Your task to perform on an android device: change notification settings in the gmail app Image 0: 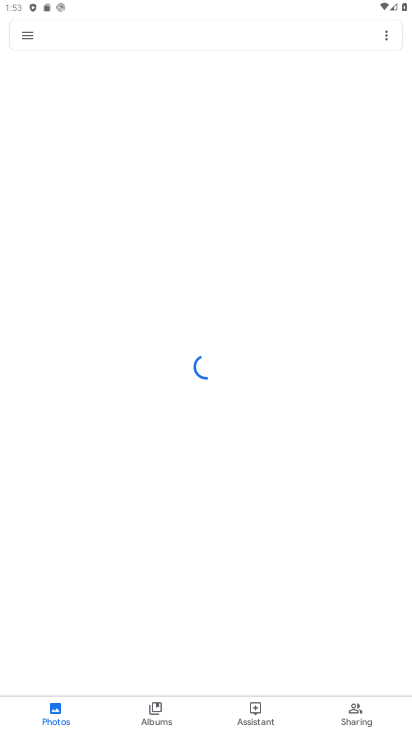
Step 0: press home button
Your task to perform on an android device: change notification settings in the gmail app Image 1: 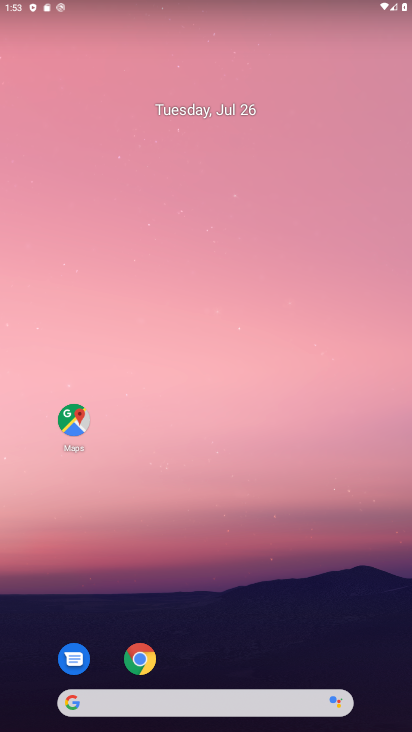
Step 1: drag from (257, 656) to (268, 11)
Your task to perform on an android device: change notification settings in the gmail app Image 2: 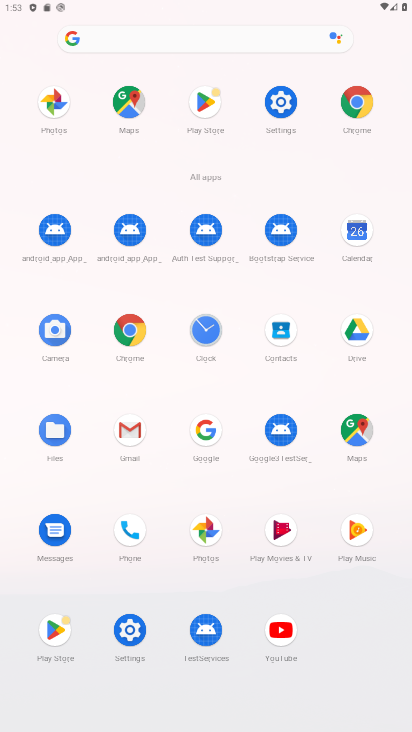
Step 2: click (129, 428)
Your task to perform on an android device: change notification settings in the gmail app Image 3: 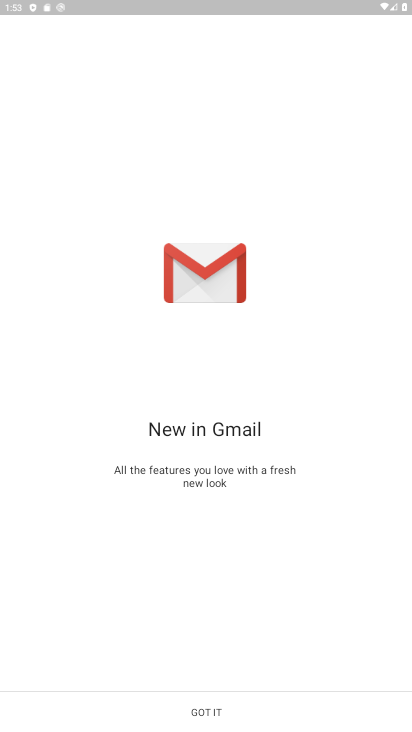
Step 3: click (242, 718)
Your task to perform on an android device: change notification settings in the gmail app Image 4: 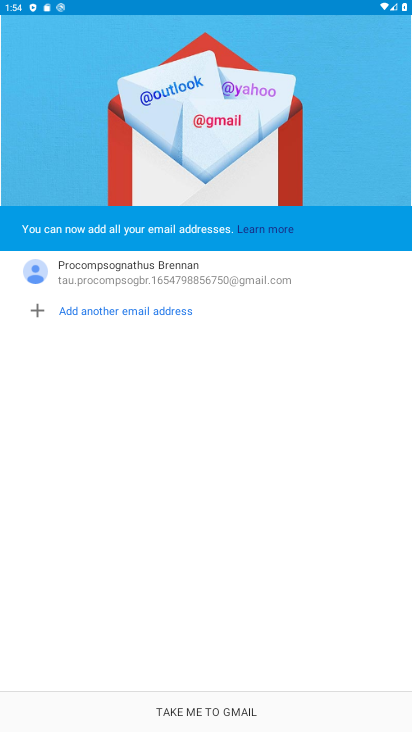
Step 4: click (249, 699)
Your task to perform on an android device: change notification settings in the gmail app Image 5: 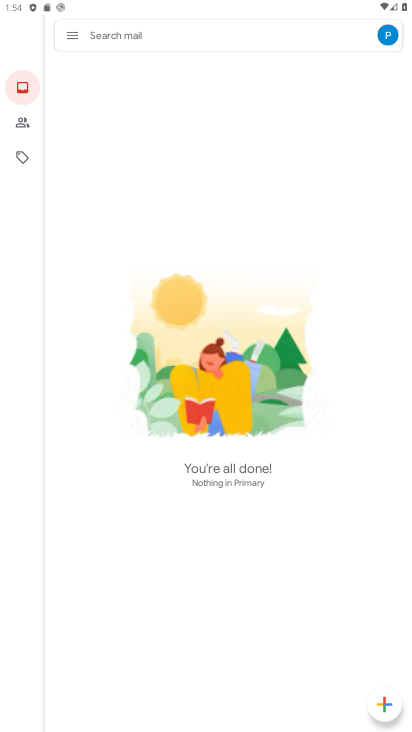
Step 5: click (69, 34)
Your task to perform on an android device: change notification settings in the gmail app Image 6: 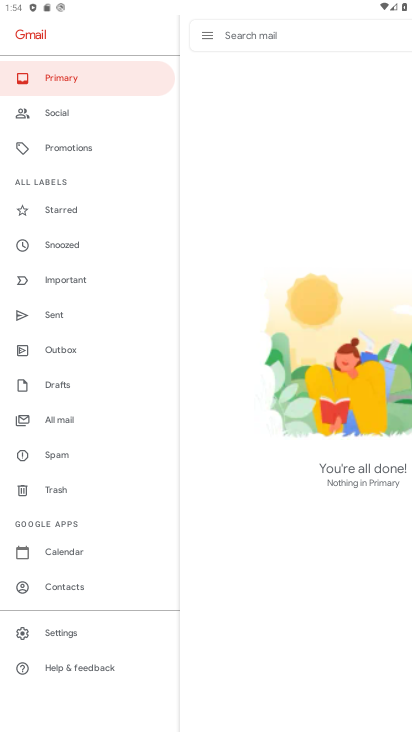
Step 6: click (58, 633)
Your task to perform on an android device: change notification settings in the gmail app Image 7: 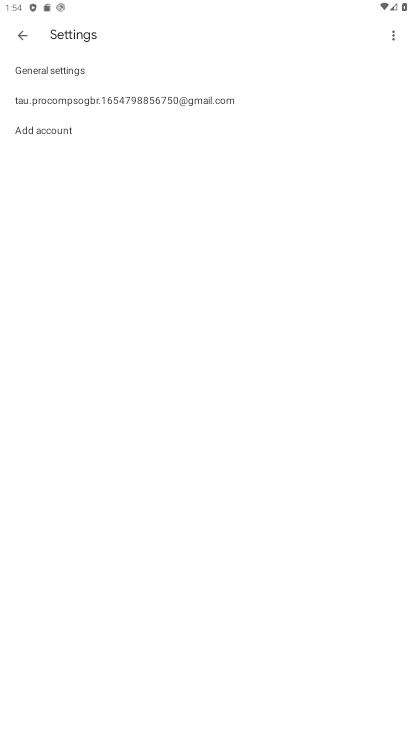
Step 7: click (180, 94)
Your task to perform on an android device: change notification settings in the gmail app Image 8: 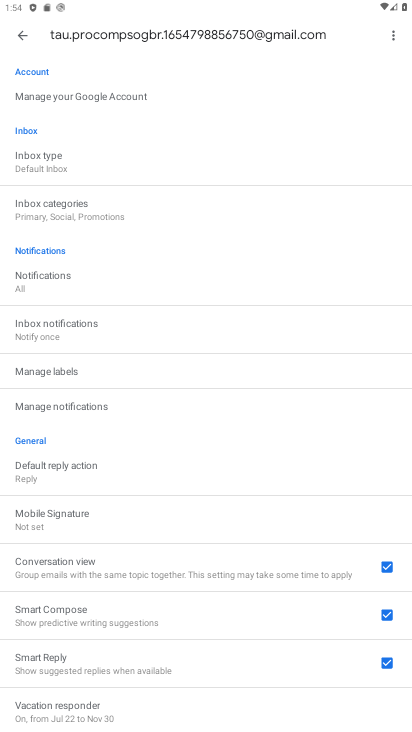
Step 8: click (113, 401)
Your task to perform on an android device: change notification settings in the gmail app Image 9: 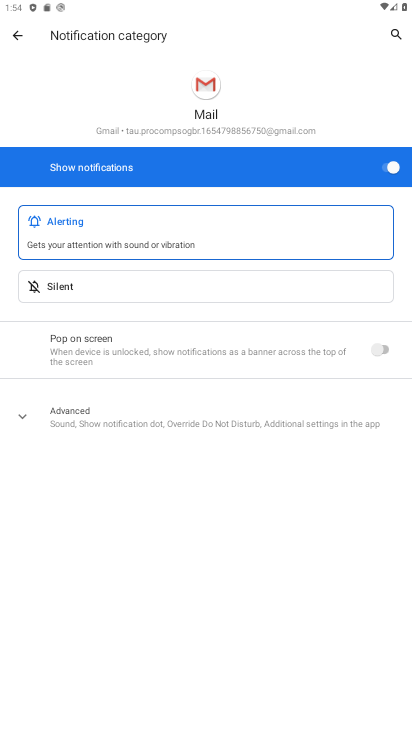
Step 9: click (393, 170)
Your task to perform on an android device: change notification settings in the gmail app Image 10: 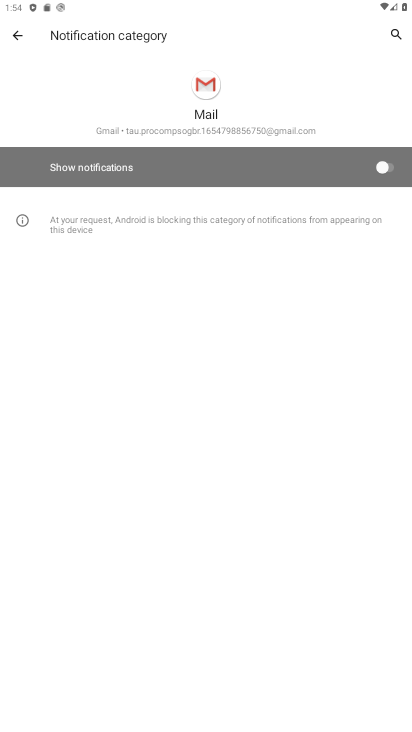
Step 10: task complete